Your task to perform on an android device: Set the phone to "Do not disturb". Image 0: 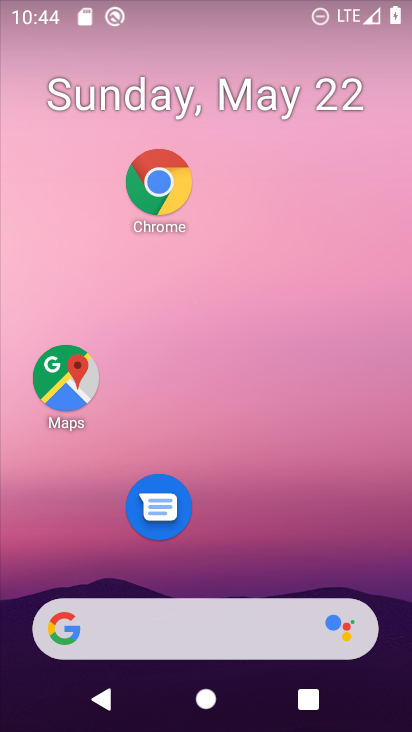
Step 0: drag from (226, 442) to (215, 18)
Your task to perform on an android device: Set the phone to "Do not disturb". Image 1: 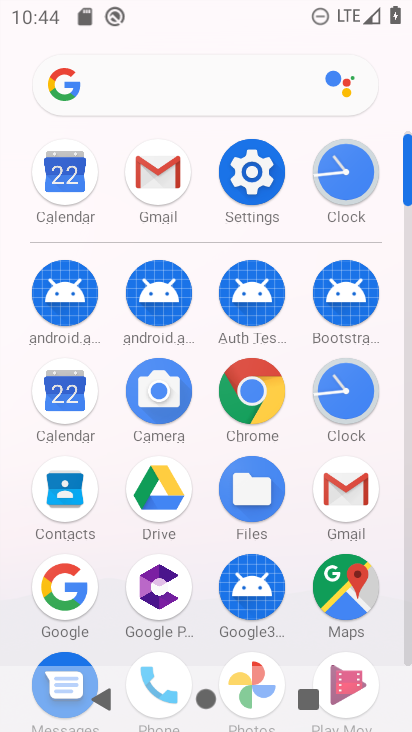
Step 1: click (260, 183)
Your task to perform on an android device: Set the phone to "Do not disturb". Image 2: 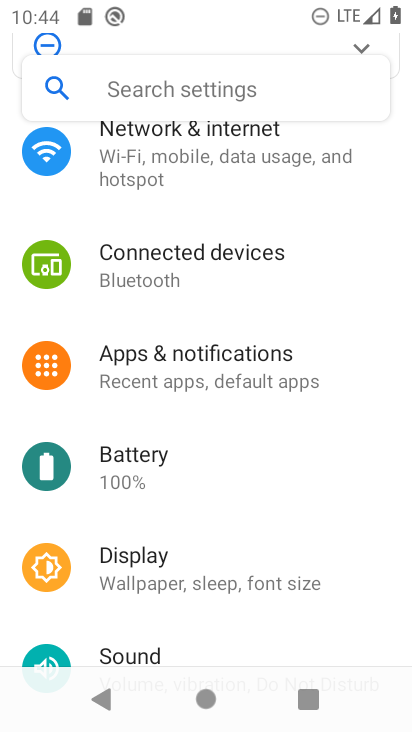
Step 2: click (190, 112)
Your task to perform on an android device: Set the phone to "Do not disturb". Image 3: 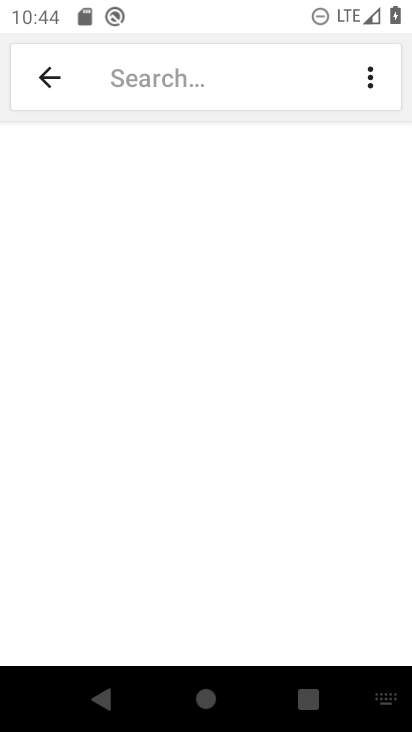
Step 3: drag from (250, 620) to (239, 135)
Your task to perform on an android device: Set the phone to "Do not disturb". Image 4: 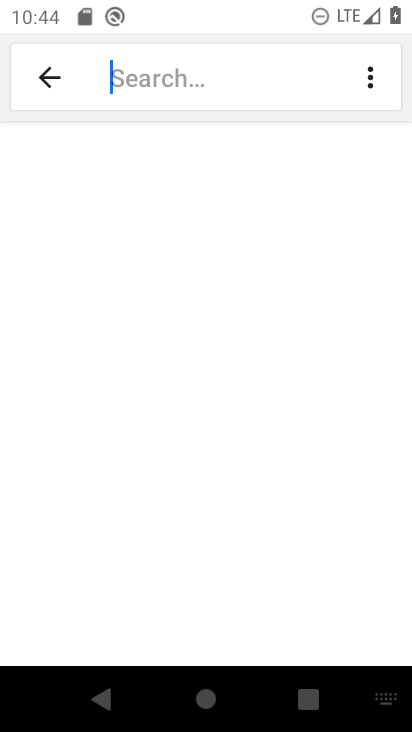
Step 4: click (47, 81)
Your task to perform on an android device: Set the phone to "Do not disturb". Image 5: 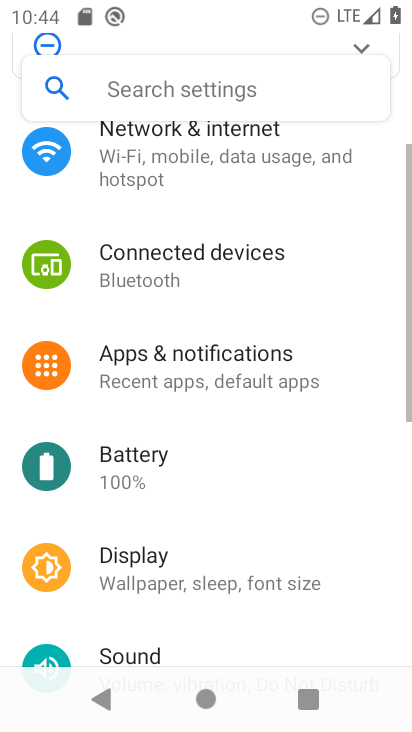
Step 5: press home button
Your task to perform on an android device: Set the phone to "Do not disturb". Image 6: 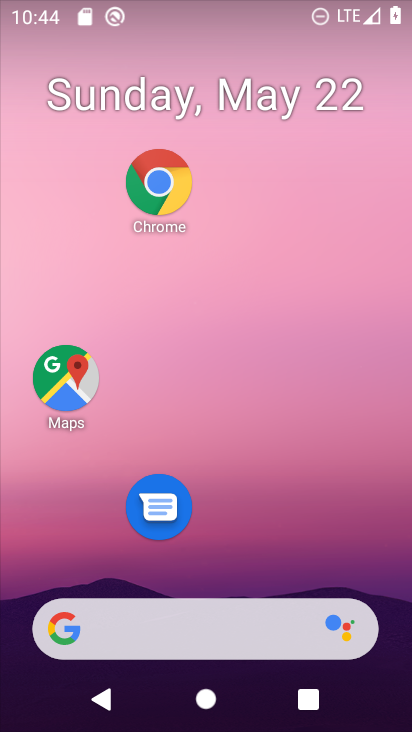
Step 6: drag from (141, 683) to (150, 35)
Your task to perform on an android device: Set the phone to "Do not disturb". Image 7: 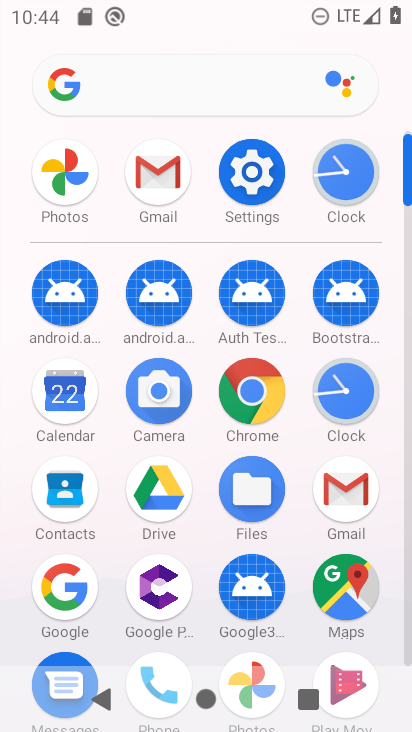
Step 7: click (242, 163)
Your task to perform on an android device: Set the phone to "Do not disturb". Image 8: 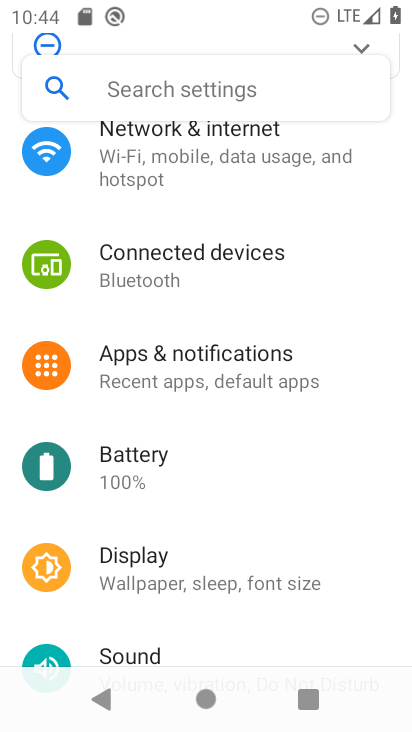
Step 8: drag from (293, 577) to (155, 12)
Your task to perform on an android device: Set the phone to "Do not disturb". Image 9: 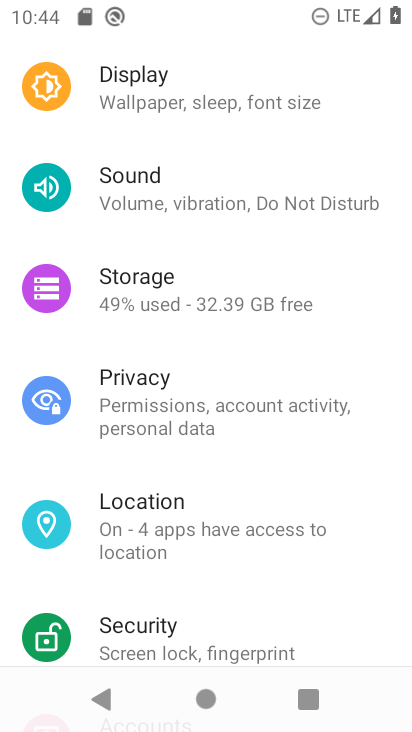
Step 9: drag from (292, 605) to (335, 106)
Your task to perform on an android device: Set the phone to "Do not disturb". Image 10: 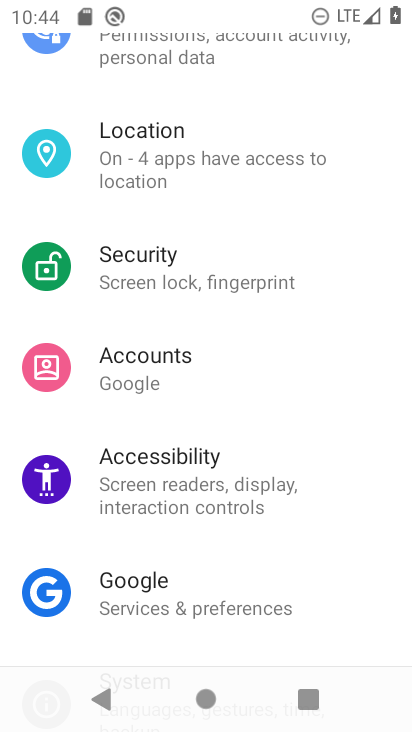
Step 10: drag from (333, 128) to (294, 542)
Your task to perform on an android device: Set the phone to "Do not disturb". Image 11: 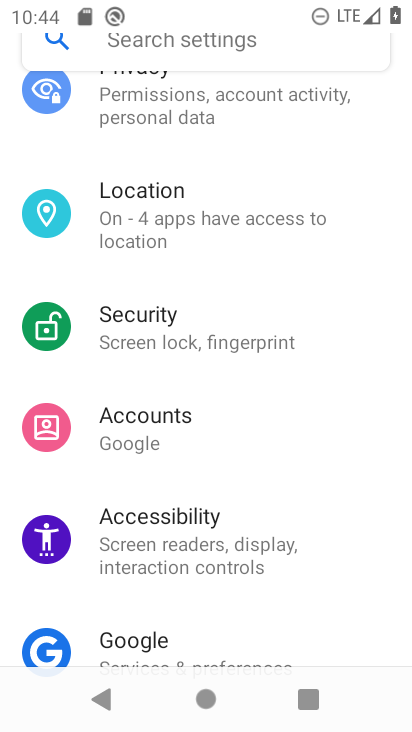
Step 11: drag from (338, 156) to (279, 605)
Your task to perform on an android device: Set the phone to "Do not disturb". Image 12: 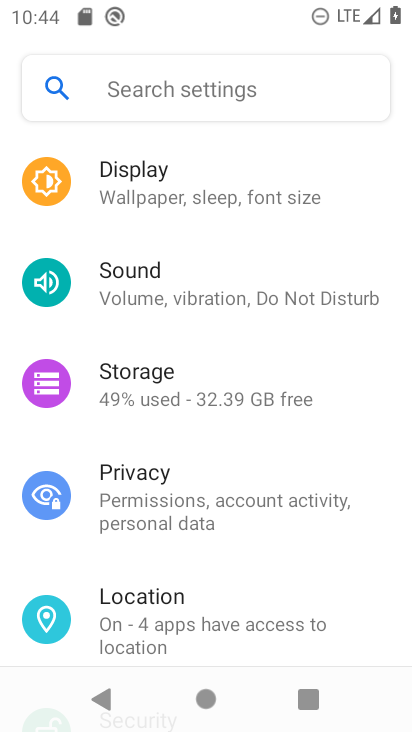
Step 12: click (311, 297)
Your task to perform on an android device: Set the phone to "Do not disturb". Image 13: 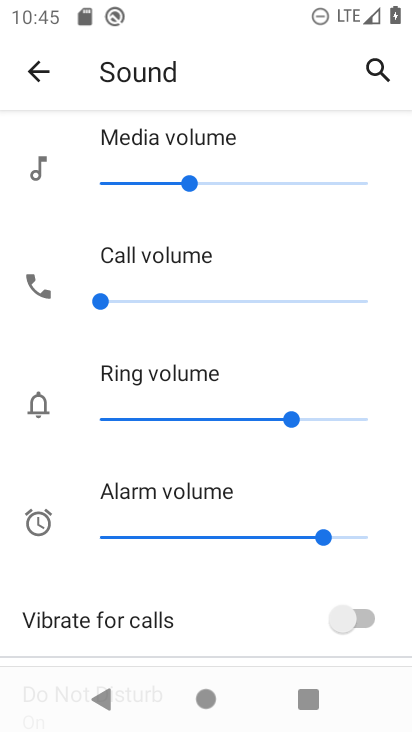
Step 13: task complete